Your task to perform on an android device: Go to battery settings Image 0: 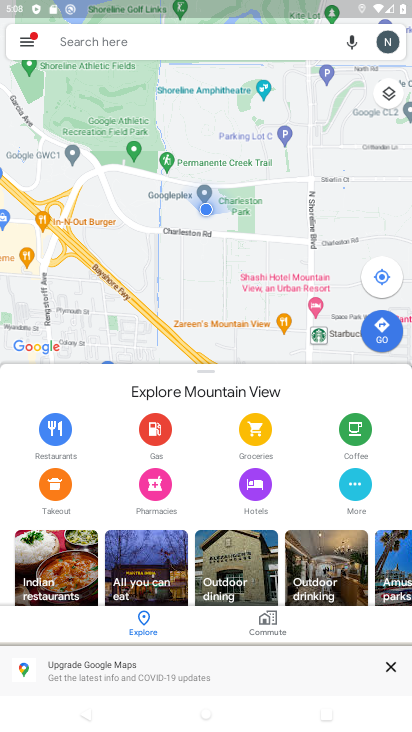
Step 0: drag from (226, 8) to (246, 425)
Your task to perform on an android device: Go to battery settings Image 1: 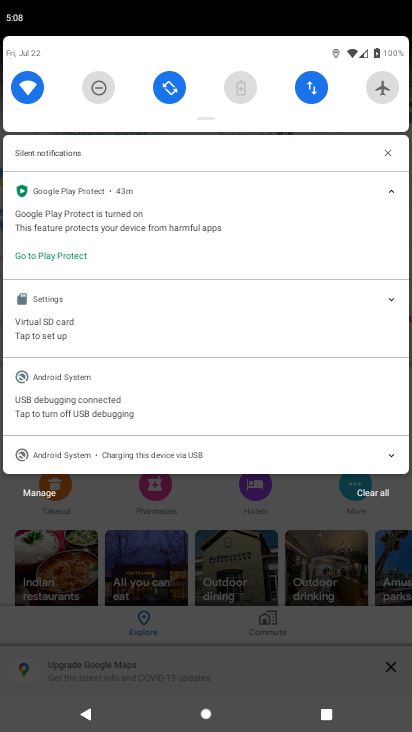
Step 1: click (252, 94)
Your task to perform on an android device: Go to battery settings Image 2: 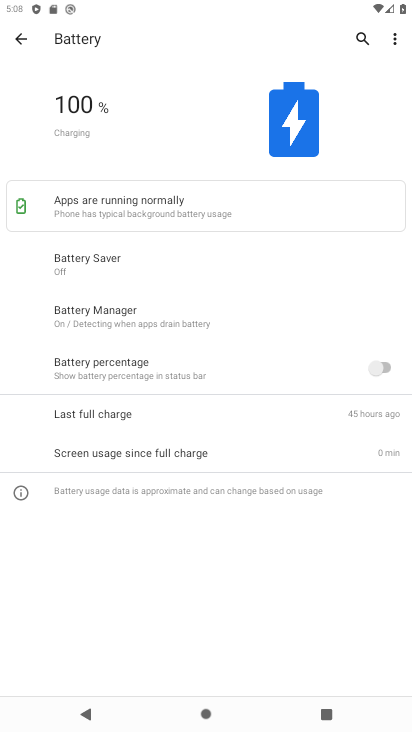
Step 2: task complete